Your task to perform on an android device: toggle show notifications on the lock screen Image 0: 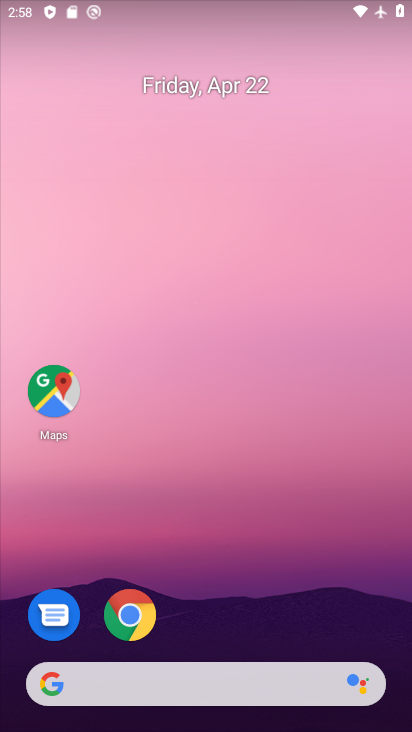
Step 0: drag from (306, 593) to (210, 204)
Your task to perform on an android device: toggle show notifications on the lock screen Image 1: 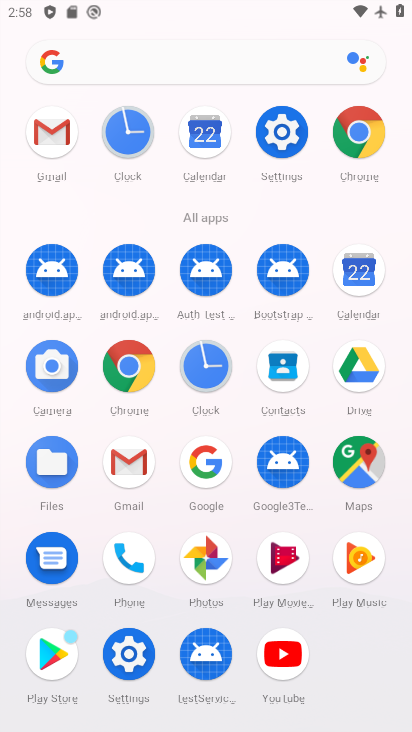
Step 1: click (292, 145)
Your task to perform on an android device: toggle show notifications on the lock screen Image 2: 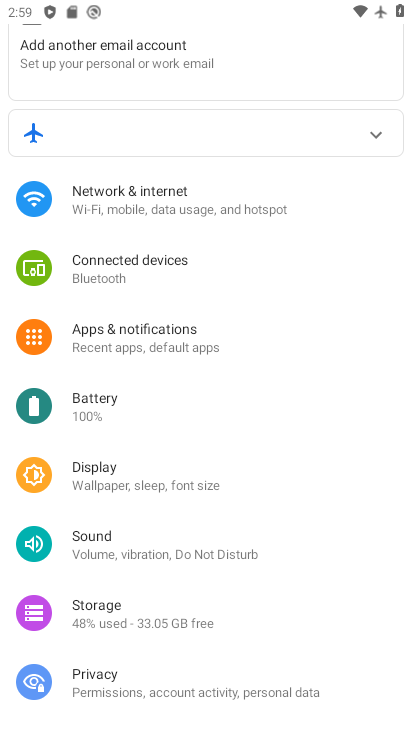
Step 2: click (235, 346)
Your task to perform on an android device: toggle show notifications on the lock screen Image 3: 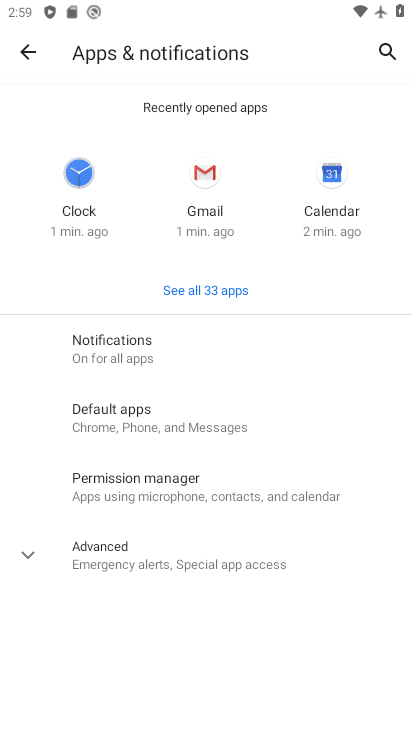
Step 3: click (235, 346)
Your task to perform on an android device: toggle show notifications on the lock screen Image 4: 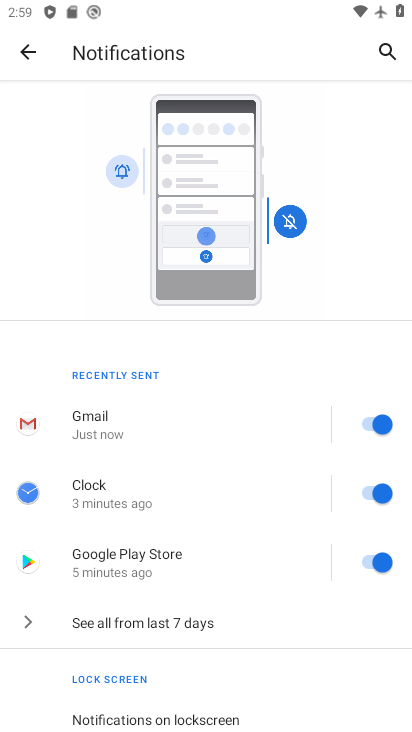
Step 4: drag from (199, 587) to (208, 234)
Your task to perform on an android device: toggle show notifications on the lock screen Image 5: 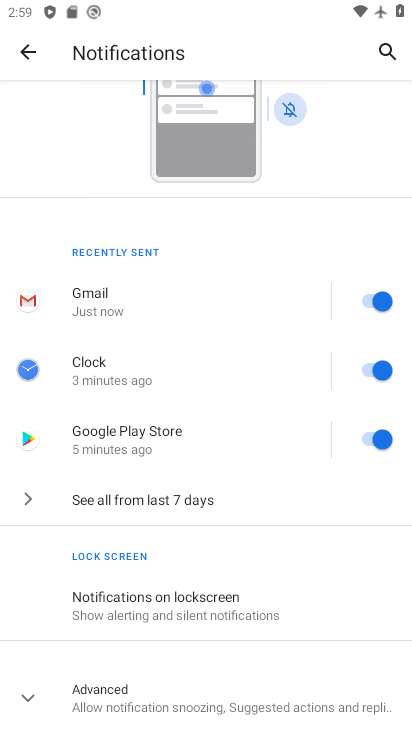
Step 5: click (200, 619)
Your task to perform on an android device: toggle show notifications on the lock screen Image 6: 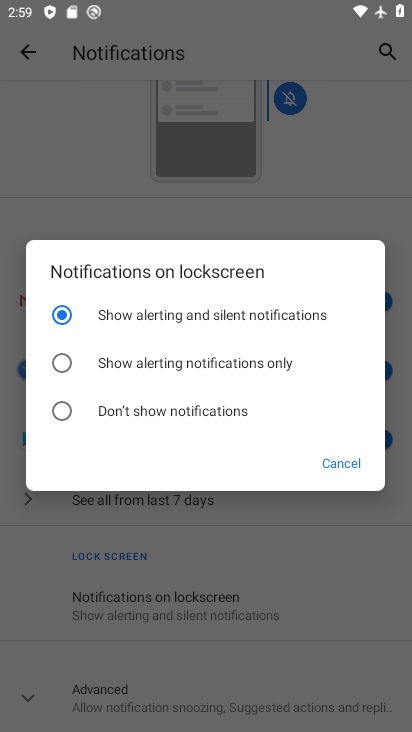
Step 6: click (223, 363)
Your task to perform on an android device: toggle show notifications on the lock screen Image 7: 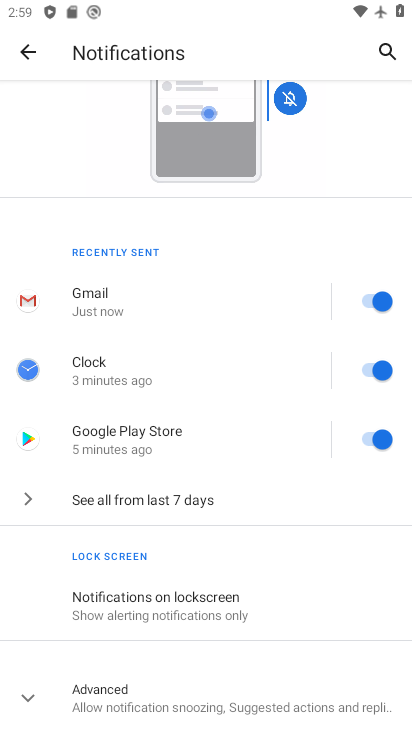
Step 7: task complete